Your task to perform on an android device: turn vacation reply on in the gmail app Image 0: 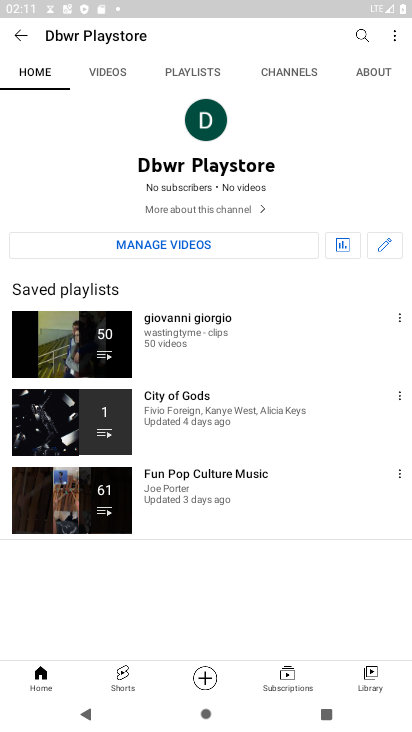
Step 0: press home button
Your task to perform on an android device: turn vacation reply on in the gmail app Image 1: 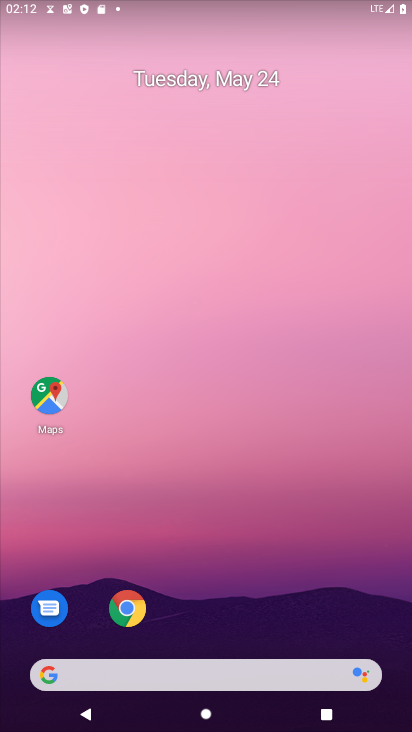
Step 1: drag from (273, 618) to (248, 202)
Your task to perform on an android device: turn vacation reply on in the gmail app Image 2: 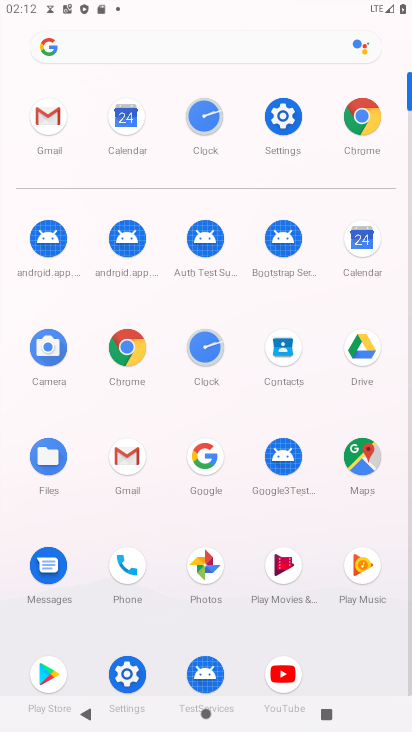
Step 2: click (42, 121)
Your task to perform on an android device: turn vacation reply on in the gmail app Image 3: 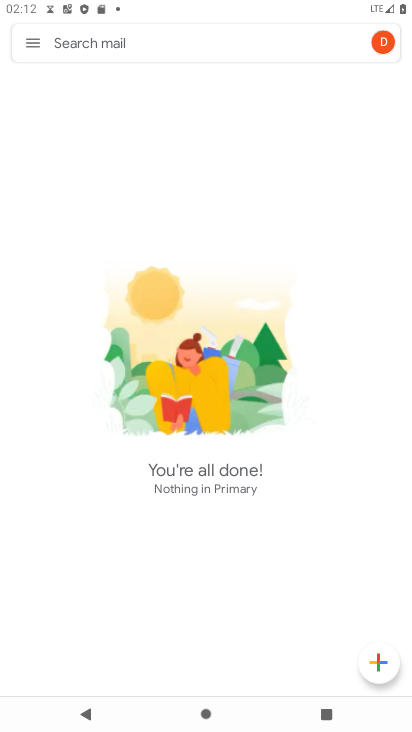
Step 3: click (22, 48)
Your task to perform on an android device: turn vacation reply on in the gmail app Image 4: 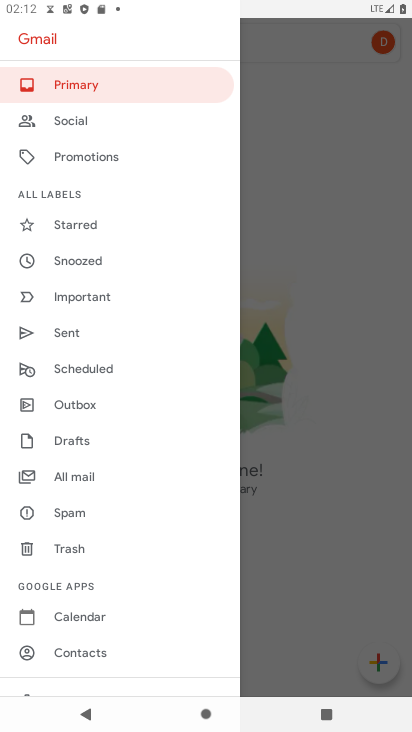
Step 4: drag from (127, 667) to (112, 311)
Your task to perform on an android device: turn vacation reply on in the gmail app Image 5: 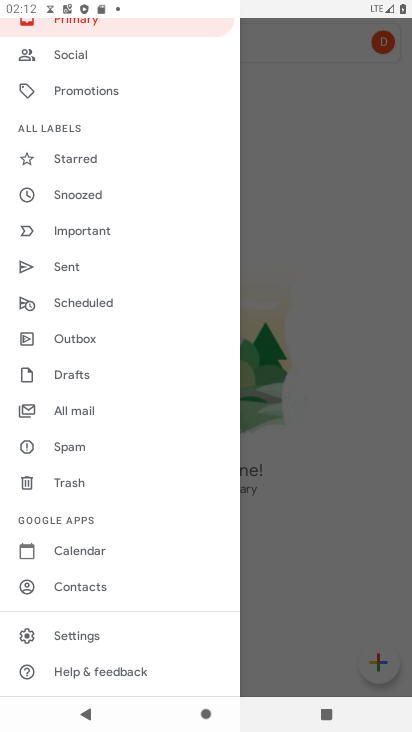
Step 5: click (104, 643)
Your task to perform on an android device: turn vacation reply on in the gmail app Image 6: 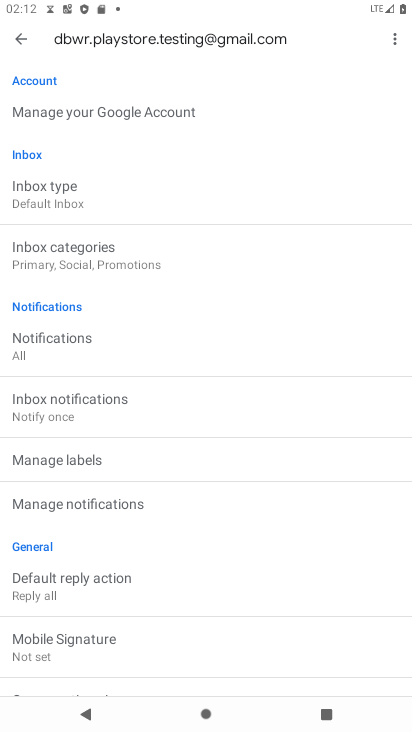
Step 6: drag from (136, 659) to (132, 309)
Your task to perform on an android device: turn vacation reply on in the gmail app Image 7: 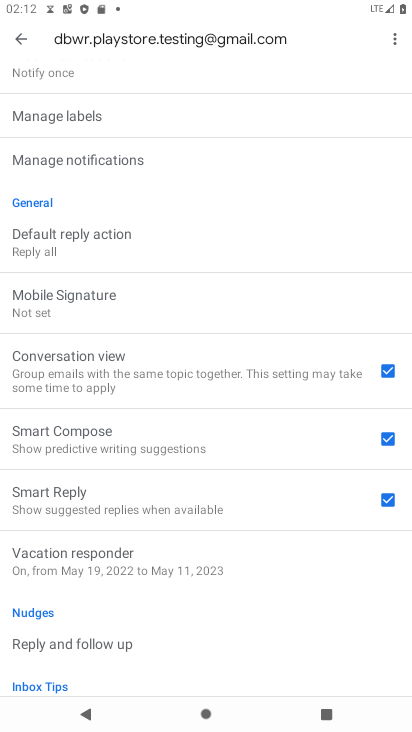
Step 7: click (227, 569)
Your task to perform on an android device: turn vacation reply on in the gmail app Image 8: 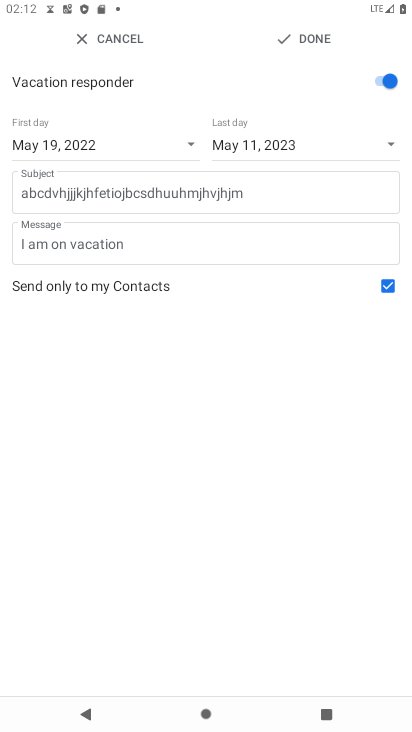
Step 8: click (315, 59)
Your task to perform on an android device: turn vacation reply on in the gmail app Image 9: 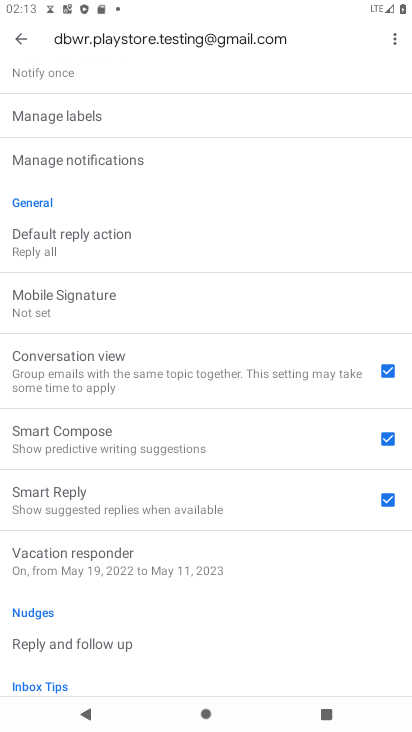
Step 9: task complete